Your task to perform on an android device: star an email in the gmail app Image 0: 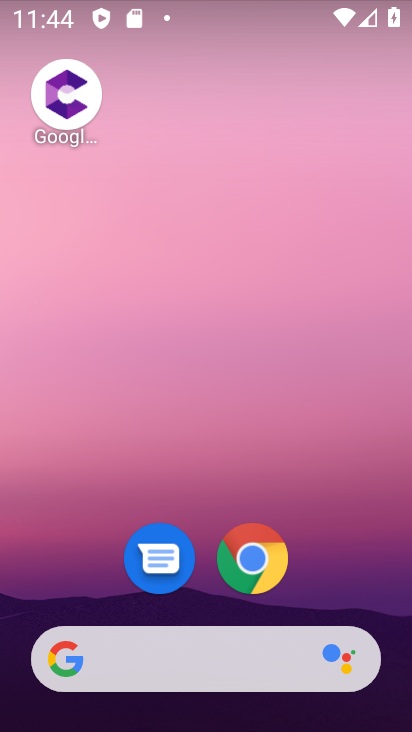
Step 0: drag from (224, 448) to (231, 163)
Your task to perform on an android device: star an email in the gmail app Image 1: 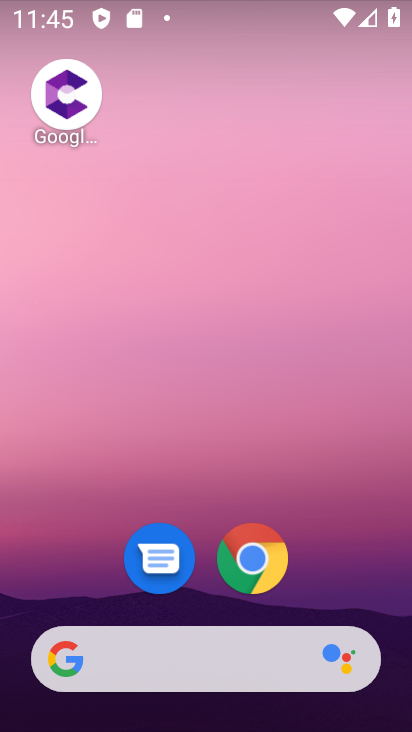
Step 1: drag from (202, 572) to (288, 146)
Your task to perform on an android device: star an email in the gmail app Image 2: 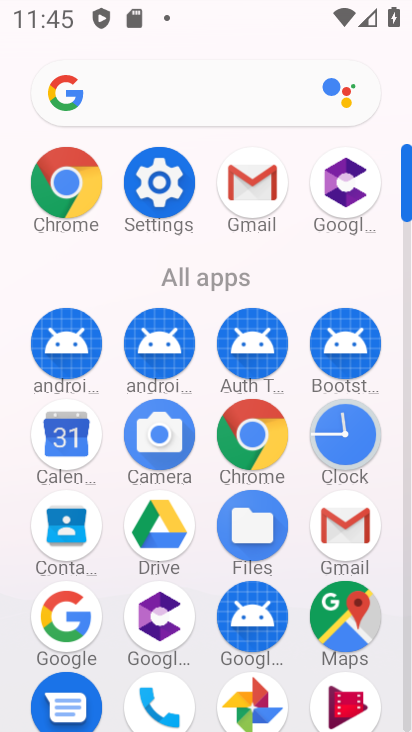
Step 2: click (378, 520)
Your task to perform on an android device: star an email in the gmail app Image 3: 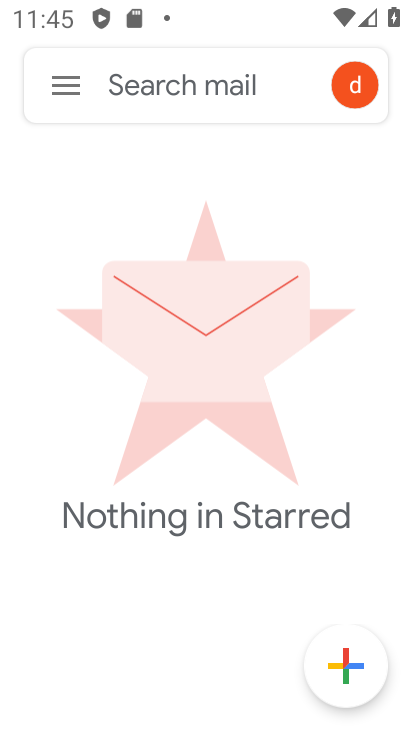
Step 3: click (73, 95)
Your task to perform on an android device: star an email in the gmail app Image 4: 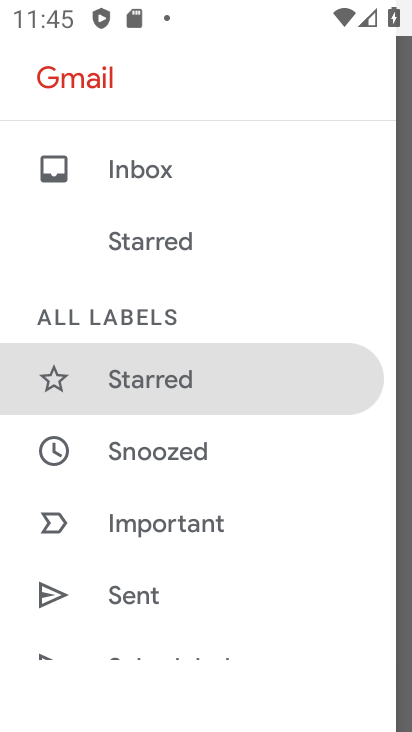
Step 4: drag from (155, 405) to (155, 367)
Your task to perform on an android device: star an email in the gmail app Image 5: 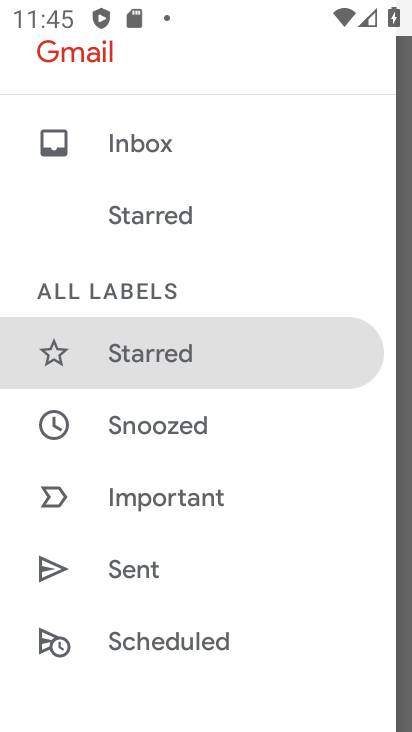
Step 5: drag from (191, 374) to (191, 306)
Your task to perform on an android device: star an email in the gmail app Image 6: 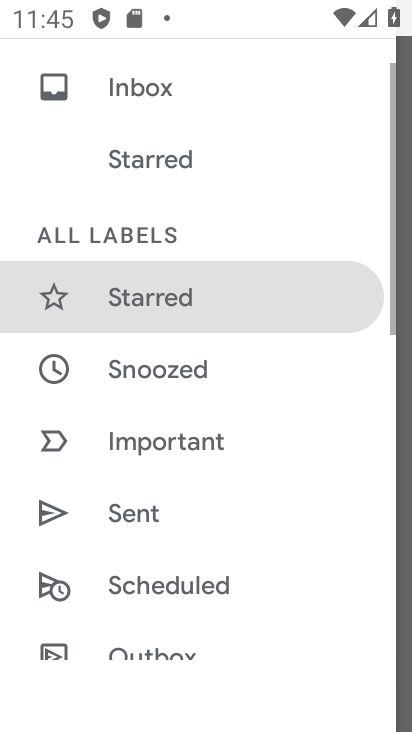
Step 6: click (191, 206)
Your task to perform on an android device: star an email in the gmail app Image 7: 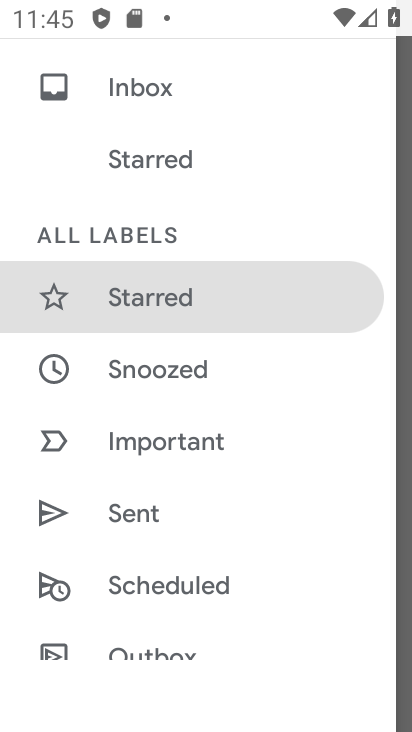
Step 7: drag from (194, 601) to (209, 205)
Your task to perform on an android device: star an email in the gmail app Image 8: 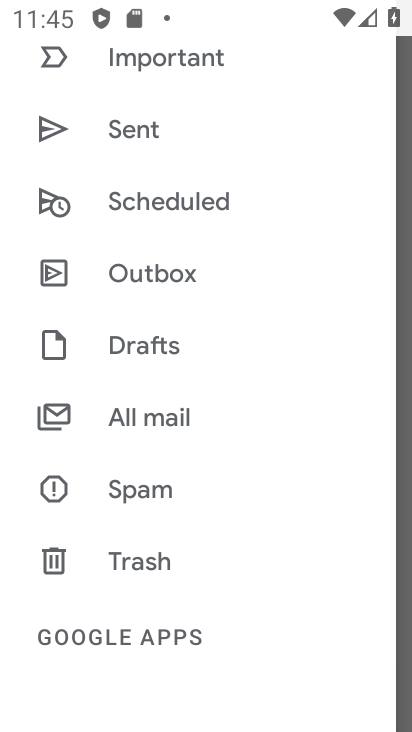
Step 8: click (176, 416)
Your task to perform on an android device: star an email in the gmail app Image 9: 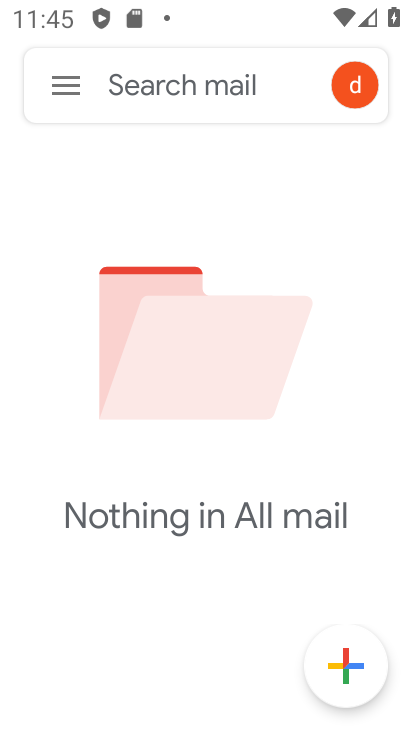
Step 9: task complete